Your task to perform on an android device: Show the shopping cart on amazon.com. Search for "lg ultragear" on amazon.com, select the first entry, and add it to the cart. Image 0: 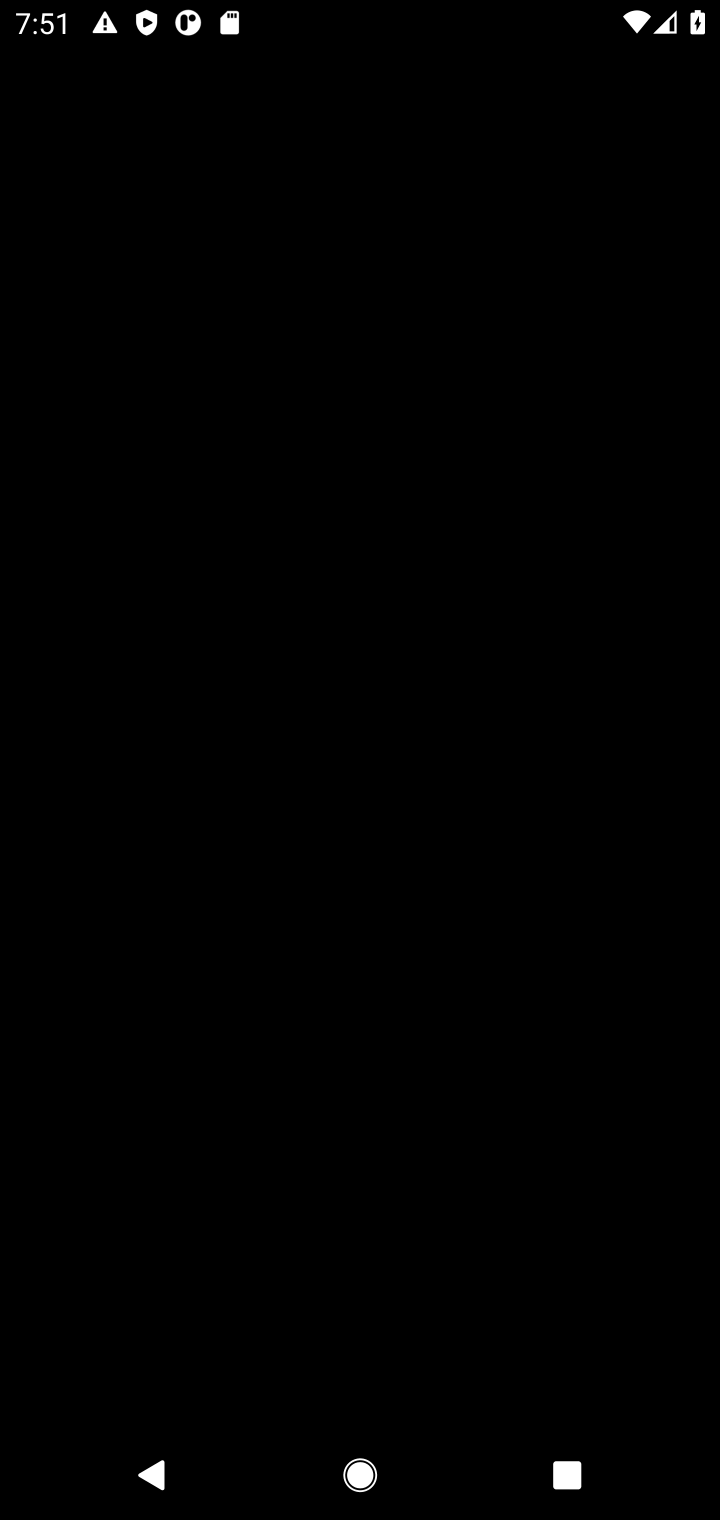
Step 0: press home button
Your task to perform on an android device: Show the shopping cart on amazon.com. Search for "lg ultragear" on amazon.com, select the first entry, and add it to the cart. Image 1: 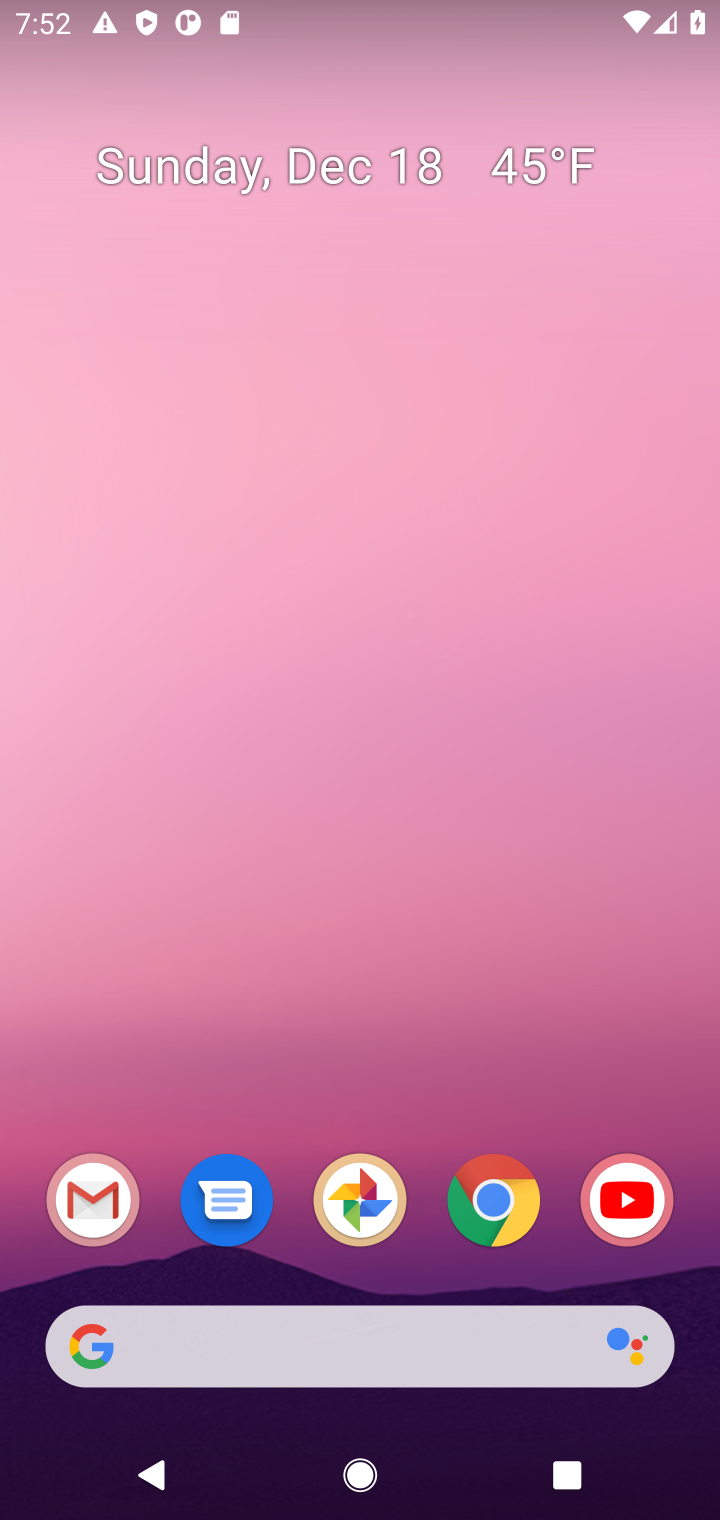
Step 1: click (488, 1197)
Your task to perform on an android device: Show the shopping cart on amazon.com. Search for "lg ultragear" on amazon.com, select the first entry, and add it to the cart. Image 2: 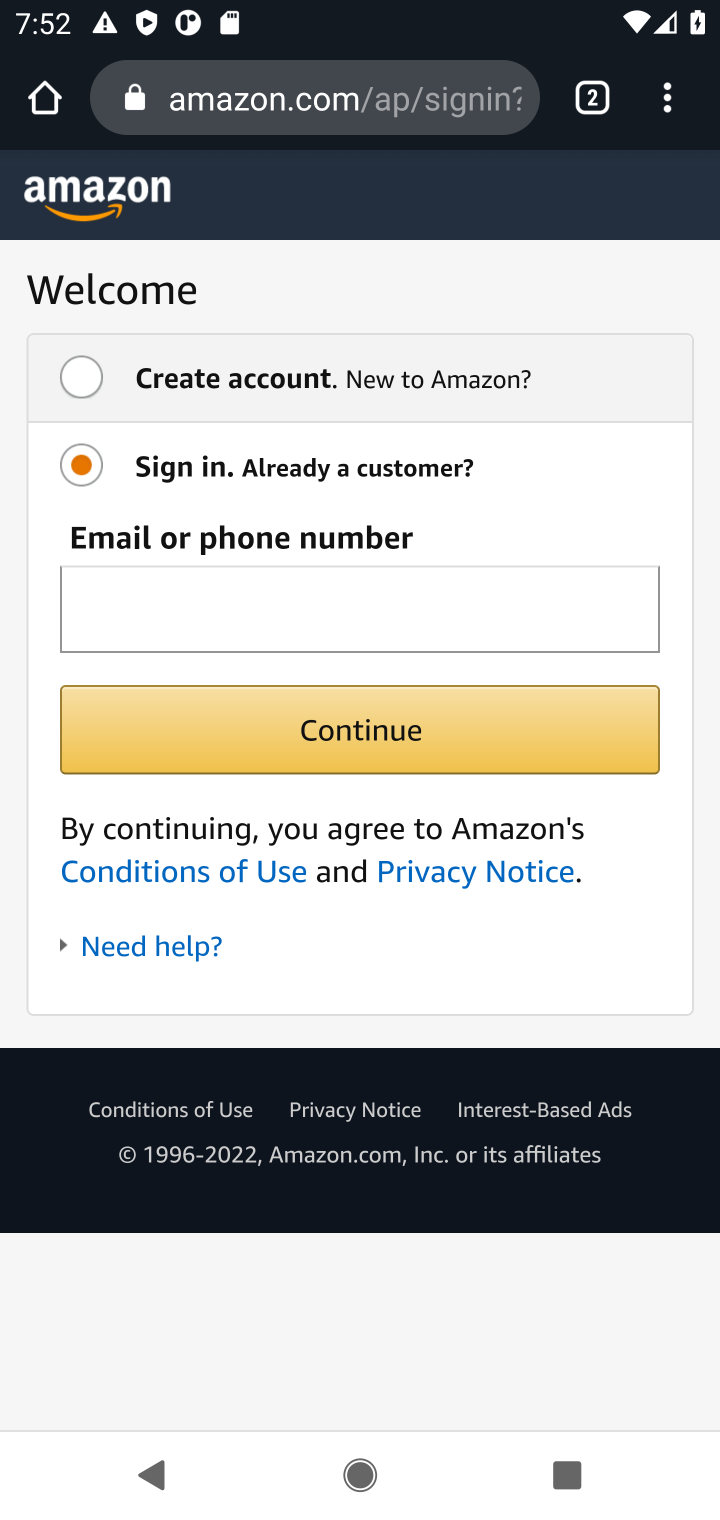
Step 2: press back button
Your task to perform on an android device: Show the shopping cart on amazon.com. Search for "lg ultragear" on amazon.com, select the first entry, and add it to the cart. Image 3: 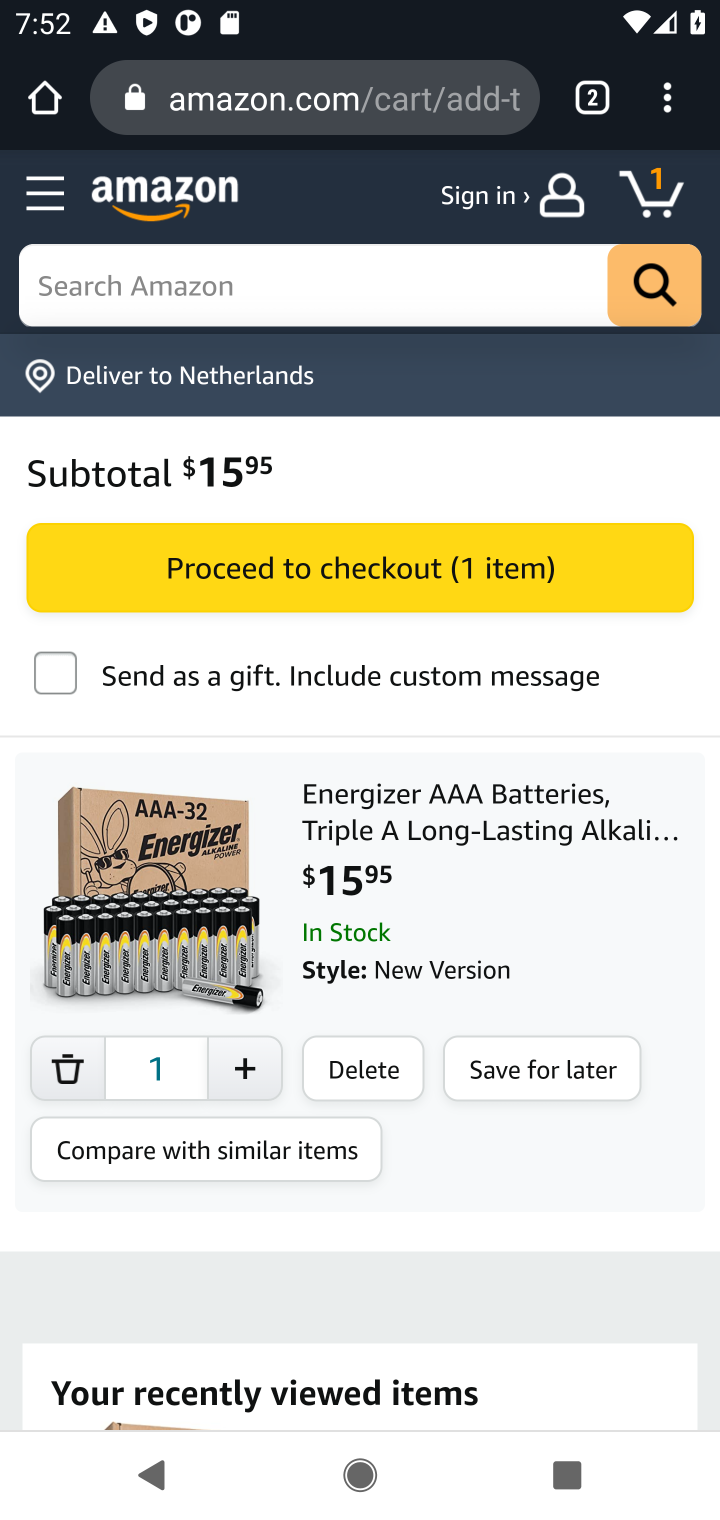
Step 3: click (206, 305)
Your task to perform on an android device: Show the shopping cart on amazon.com. Search for "lg ultragear" on amazon.com, select the first entry, and add it to the cart. Image 4: 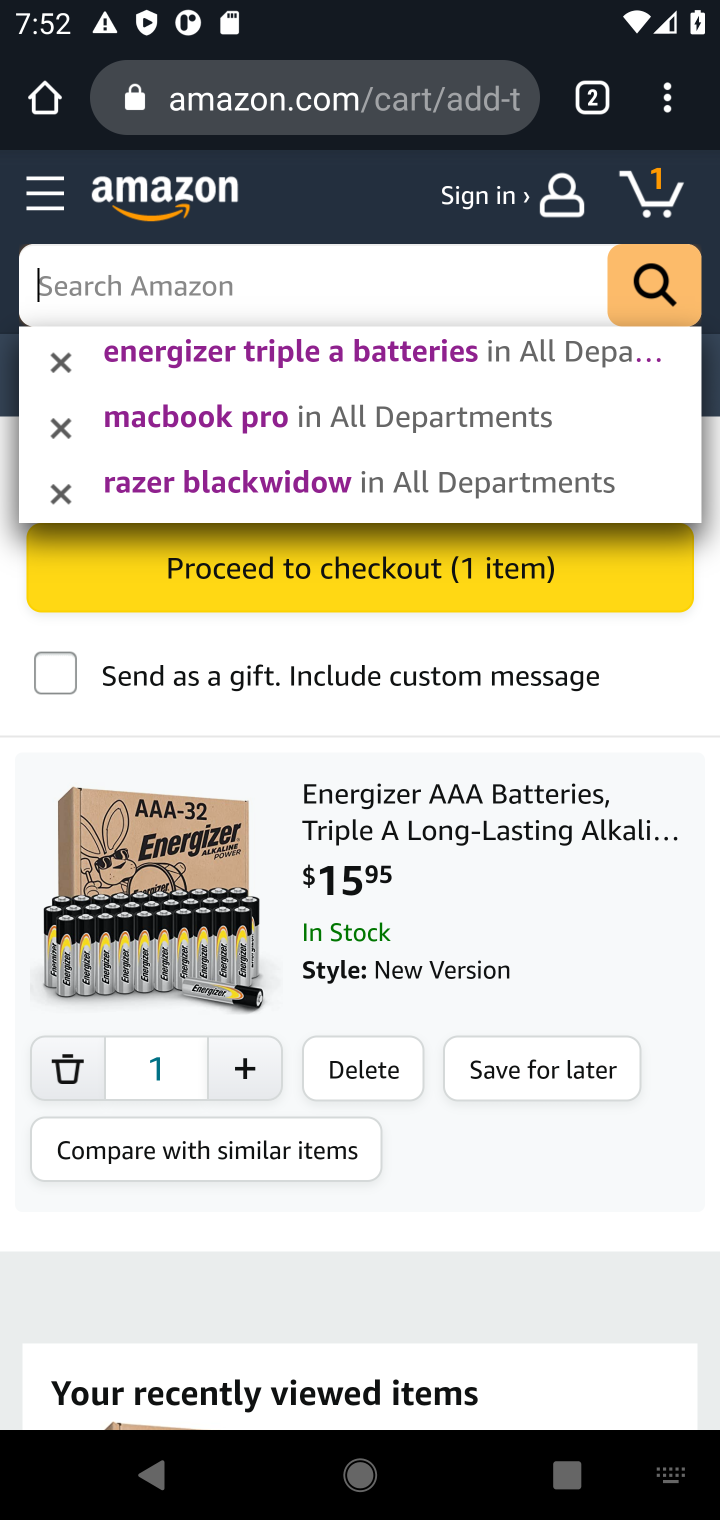
Step 4: type "lg ultragear"
Your task to perform on an android device: Show the shopping cart on amazon.com. Search for "lg ultragear" on amazon.com, select the first entry, and add it to the cart. Image 5: 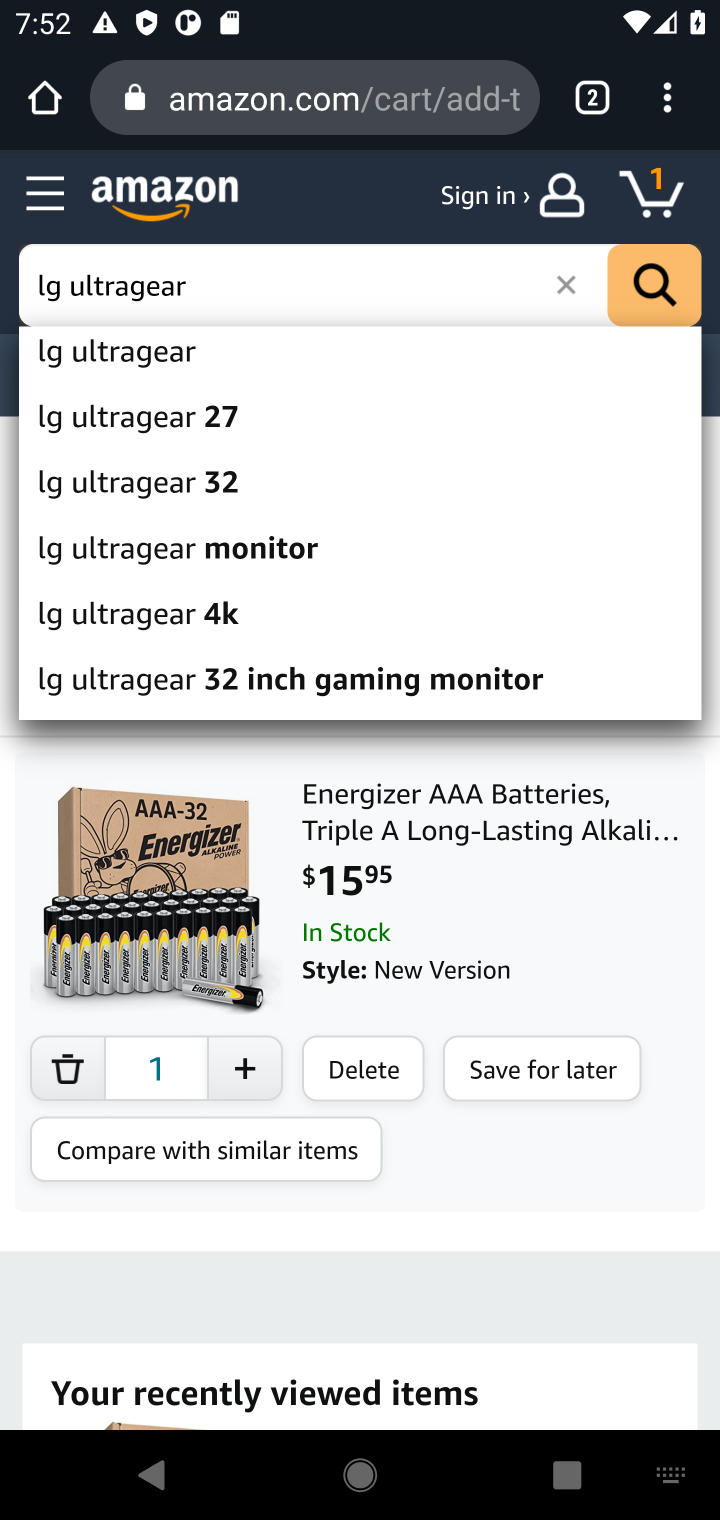
Step 5: click (124, 364)
Your task to perform on an android device: Show the shopping cart on amazon.com. Search for "lg ultragear" on amazon.com, select the first entry, and add it to the cart. Image 6: 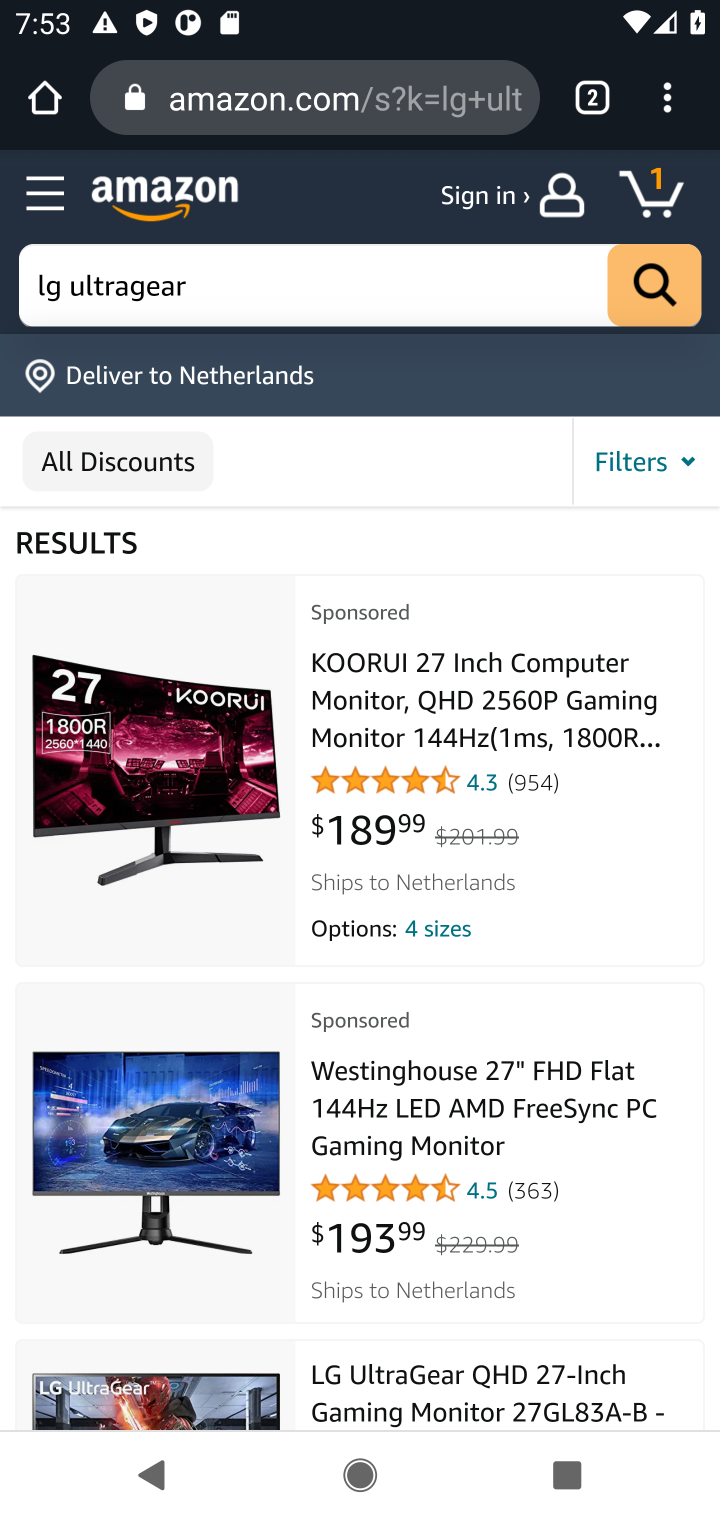
Step 6: task complete